Your task to perform on an android device: change the clock style Image 0: 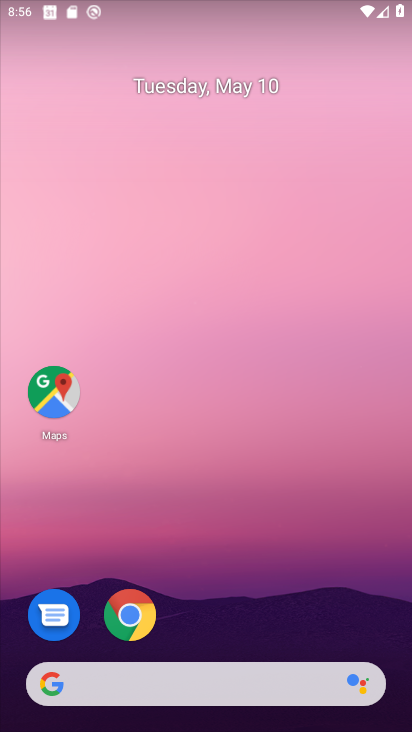
Step 0: click (246, 186)
Your task to perform on an android device: change the clock style Image 1: 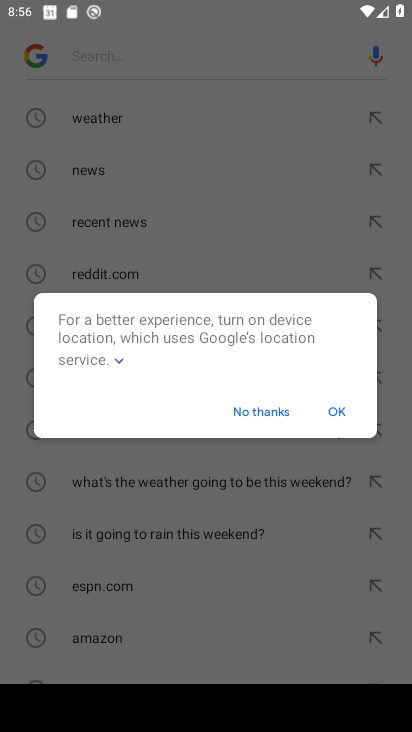
Step 1: click (329, 418)
Your task to perform on an android device: change the clock style Image 2: 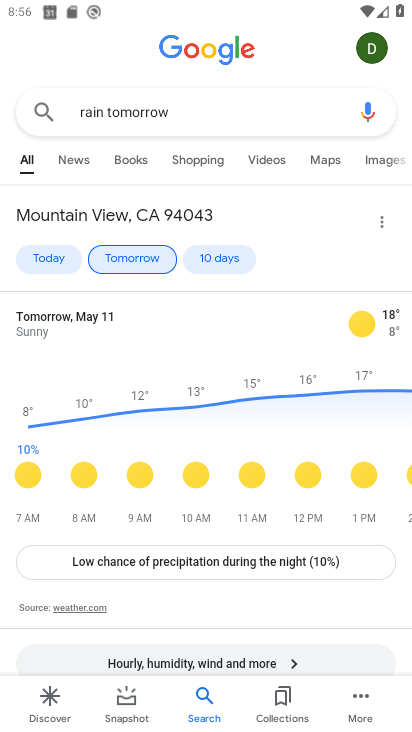
Step 2: press home button
Your task to perform on an android device: change the clock style Image 3: 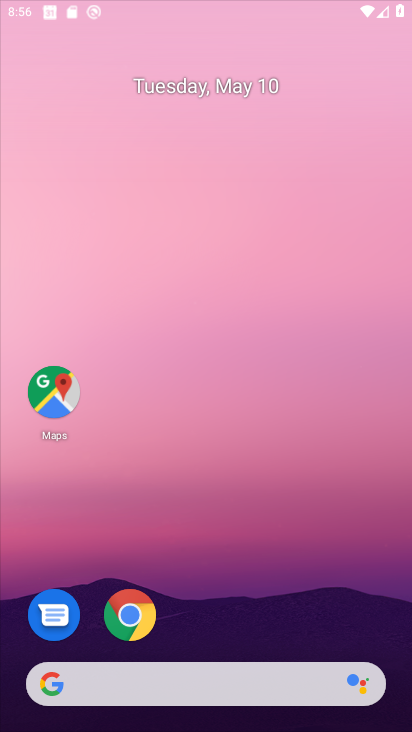
Step 3: drag from (180, 568) to (161, 104)
Your task to perform on an android device: change the clock style Image 4: 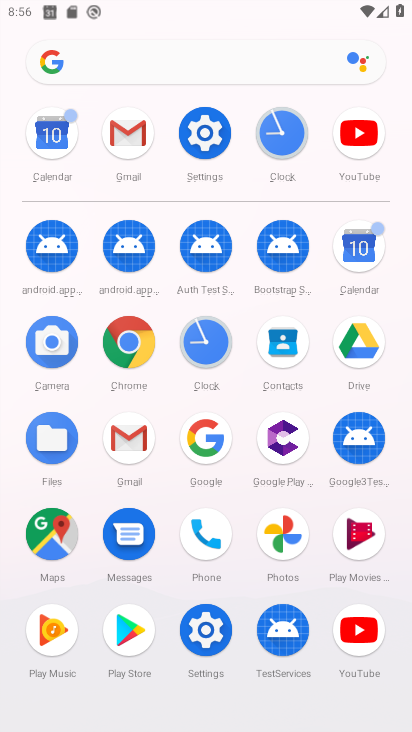
Step 4: click (204, 351)
Your task to perform on an android device: change the clock style Image 5: 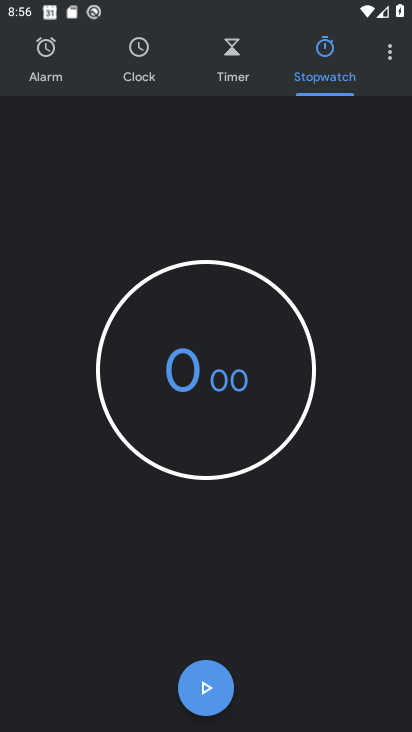
Step 5: click (390, 70)
Your task to perform on an android device: change the clock style Image 6: 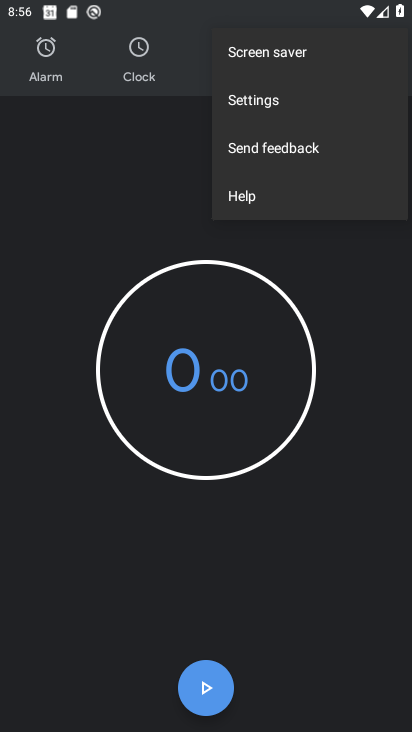
Step 6: click (285, 109)
Your task to perform on an android device: change the clock style Image 7: 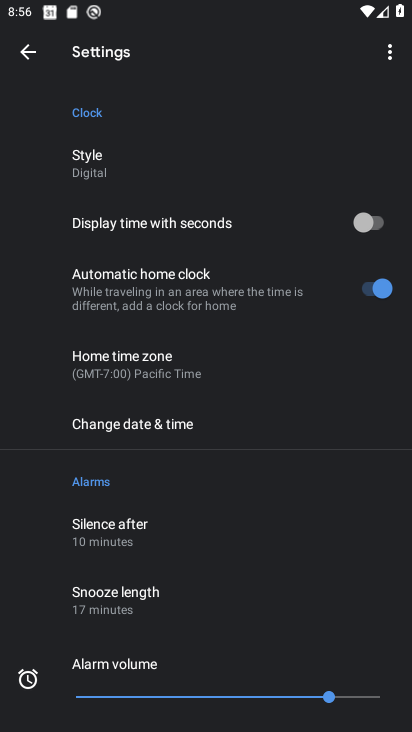
Step 7: drag from (183, 582) to (237, 303)
Your task to perform on an android device: change the clock style Image 8: 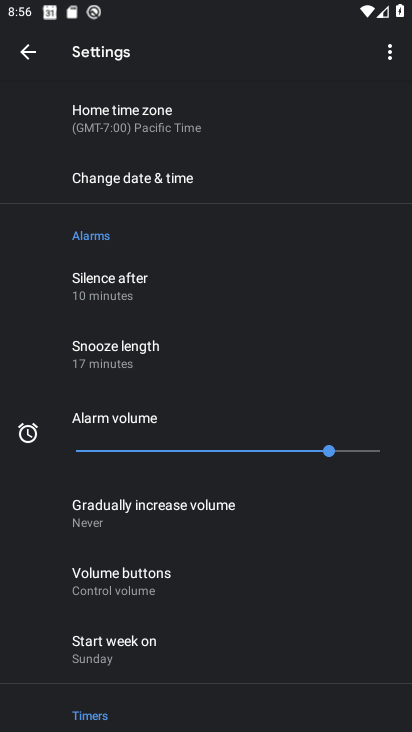
Step 8: drag from (193, 662) to (298, 312)
Your task to perform on an android device: change the clock style Image 9: 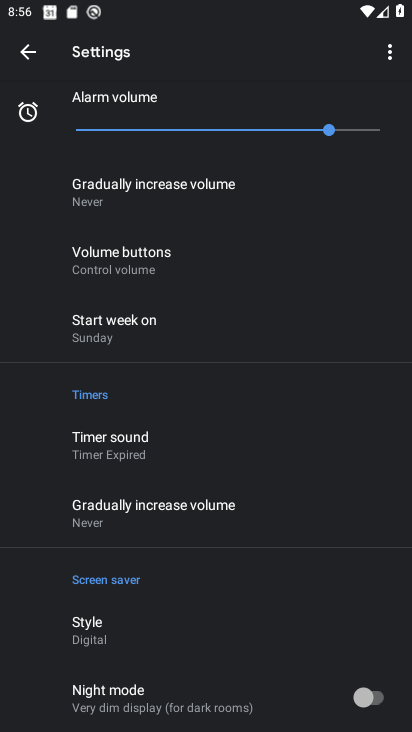
Step 9: drag from (287, 281) to (291, 731)
Your task to perform on an android device: change the clock style Image 10: 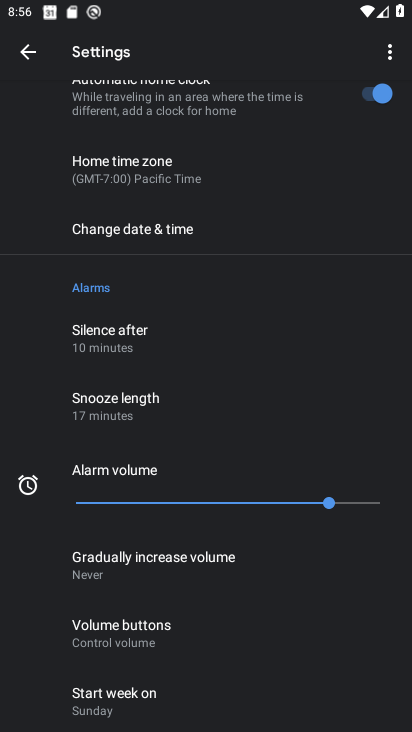
Step 10: drag from (181, 280) to (262, 610)
Your task to perform on an android device: change the clock style Image 11: 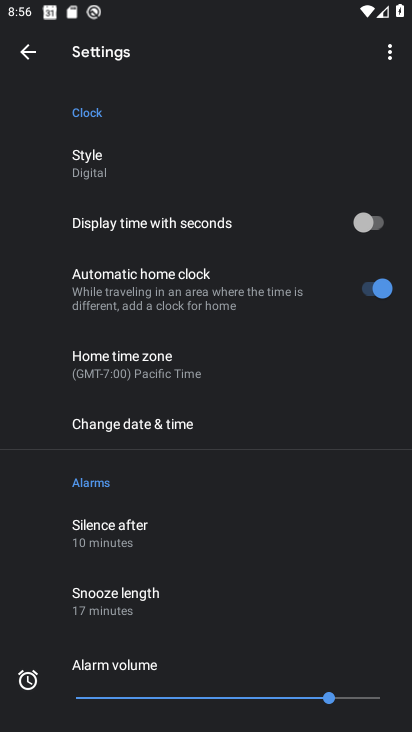
Step 11: click (147, 157)
Your task to perform on an android device: change the clock style Image 12: 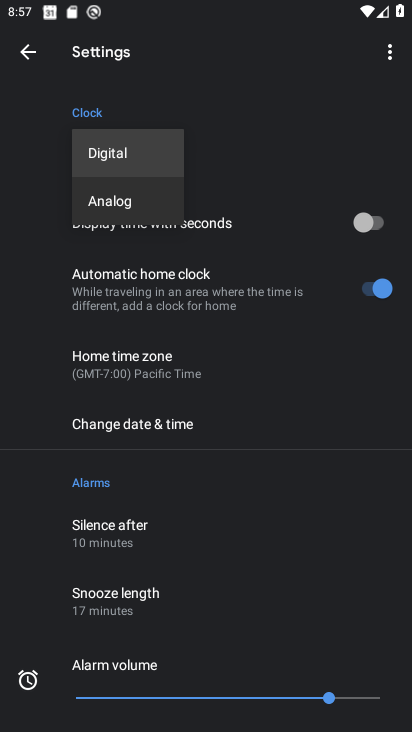
Step 12: click (137, 199)
Your task to perform on an android device: change the clock style Image 13: 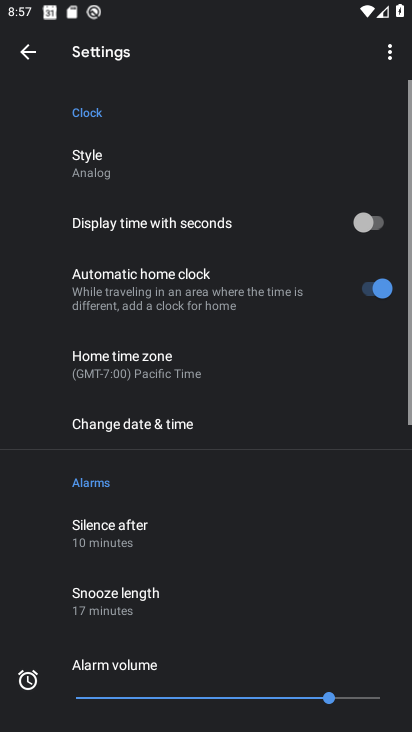
Step 13: task complete